Your task to perform on an android device: Search for vegetarian restaurants on Maps Image 0: 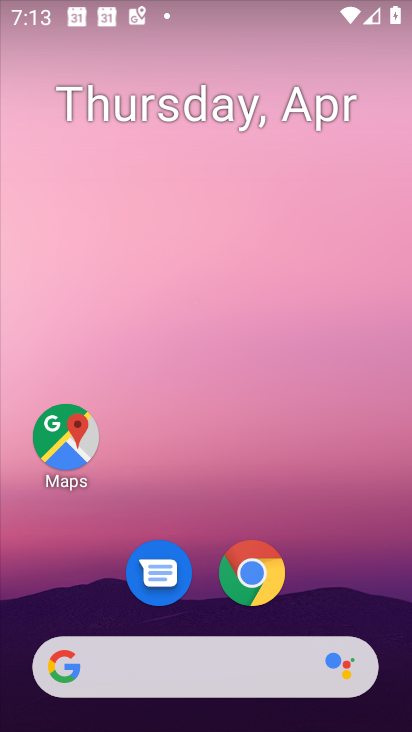
Step 0: click (74, 442)
Your task to perform on an android device: Search for vegetarian restaurants on Maps Image 1: 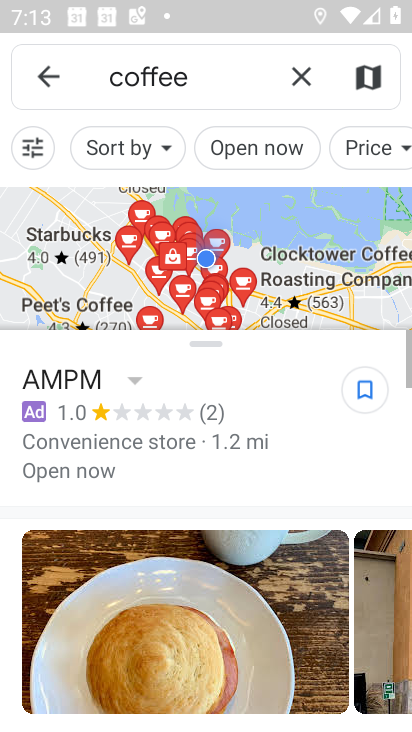
Step 1: click (298, 72)
Your task to perform on an android device: Search for vegetarian restaurants on Maps Image 2: 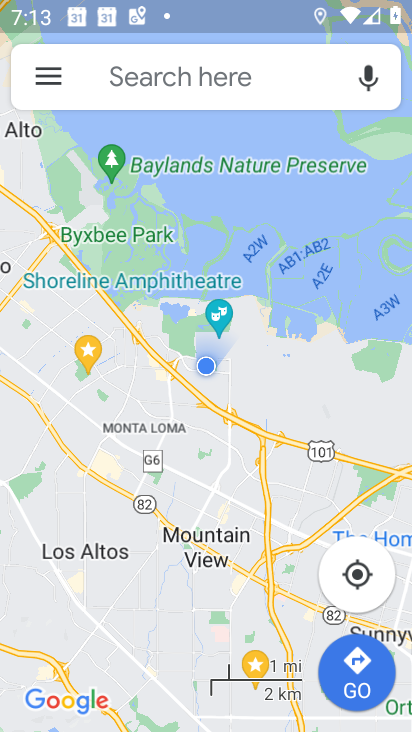
Step 2: click (140, 71)
Your task to perform on an android device: Search for vegetarian restaurants on Maps Image 3: 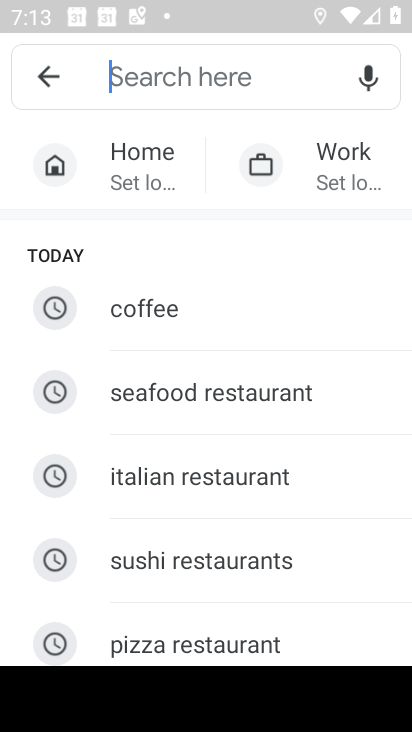
Step 3: type "vegetarian restaurants"
Your task to perform on an android device: Search for vegetarian restaurants on Maps Image 4: 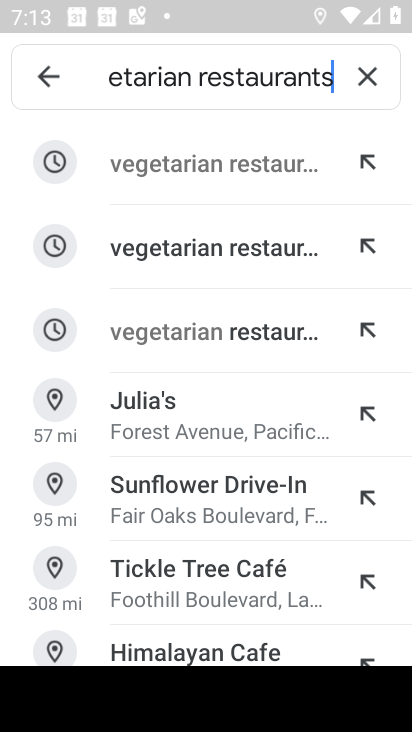
Step 4: click (166, 155)
Your task to perform on an android device: Search for vegetarian restaurants on Maps Image 5: 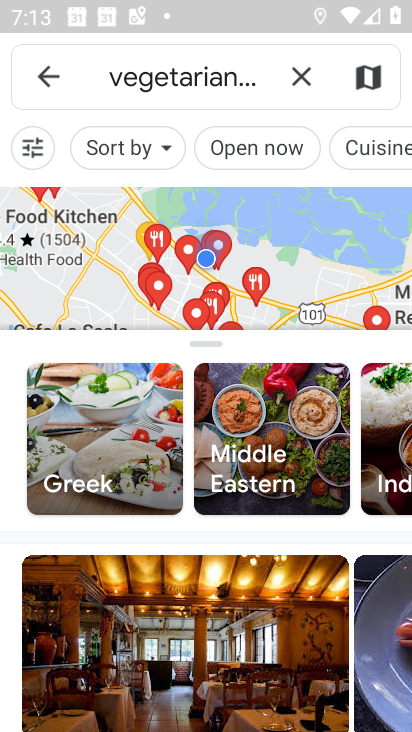
Step 5: task complete